Your task to perform on an android device: When is my next meeting? Image 0: 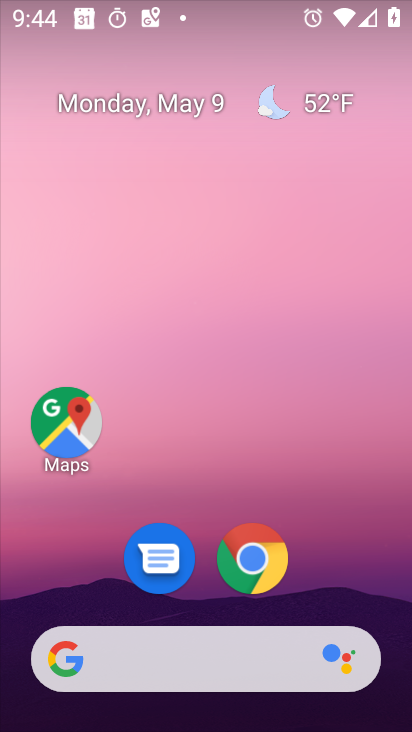
Step 0: drag from (208, 562) to (255, 112)
Your task to perform on an android device: When is my next meeting? Image 1: 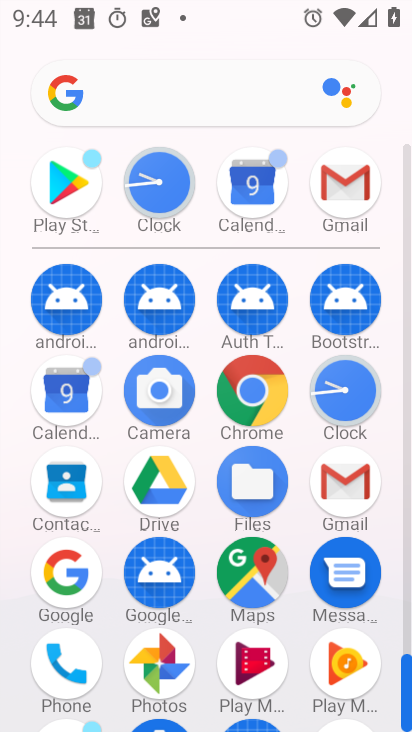
Step 1: click (250, 154)
Your task to perform on an android device: When is my next meeting? Image 2: 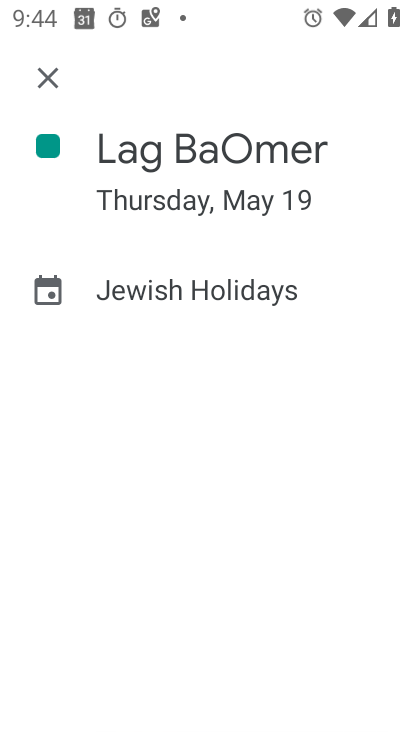
Step 2: click (58, 70)
Your task to perform on an android device: When is my next meeting? Image 3: 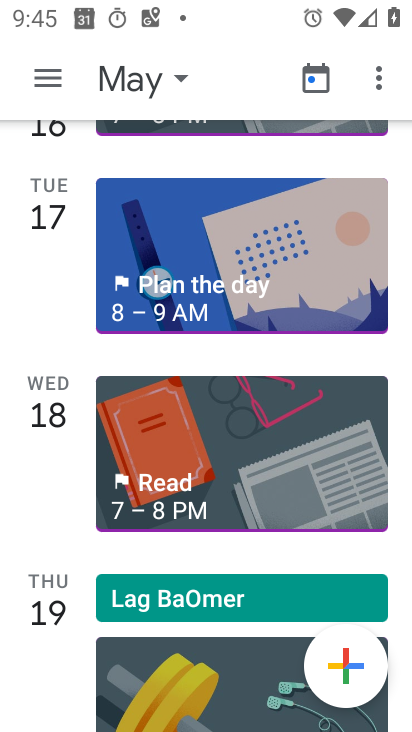
Step 3: click (157, 85)
Your task to perform on an android device: When is my next meeting? Image 4: 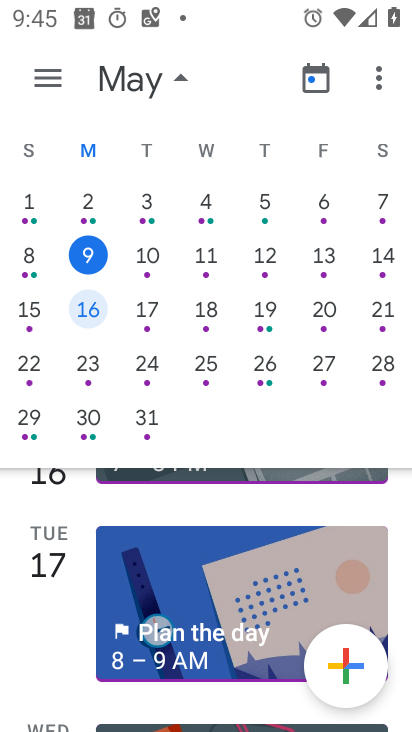
Step 4: click (85, 261)
Your task to perform on an android device: When is my next meeting? Image 5: 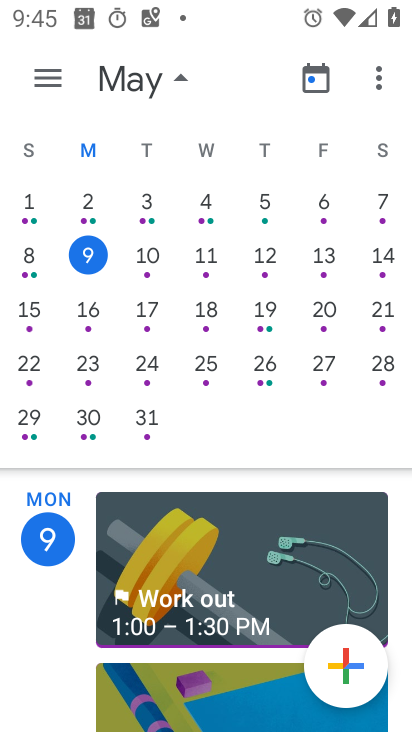
Step 5: drag from (250, 672) to (297, 203)
Your task to perform on an android device: When is my next meeting? Image 6: 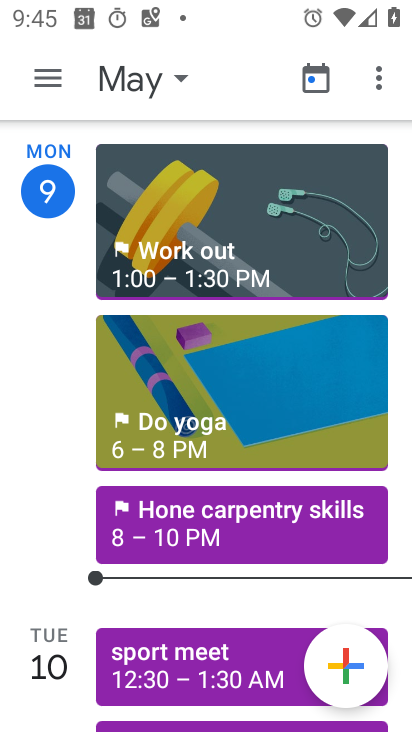
Step 6: drag from (193, 626) to (293, 174)
Your task to perform on an android device: When is my next meeting? Image 7: 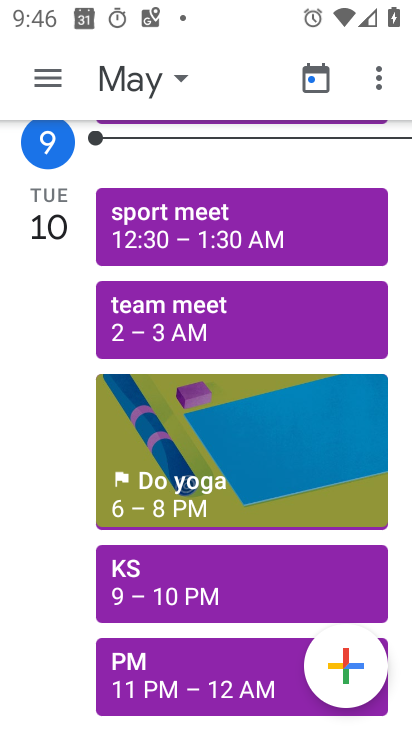
Step 7: drag from (153, 676) to (290, 82)
Your task to perform on an android device: When is my next meeting? Image 8: 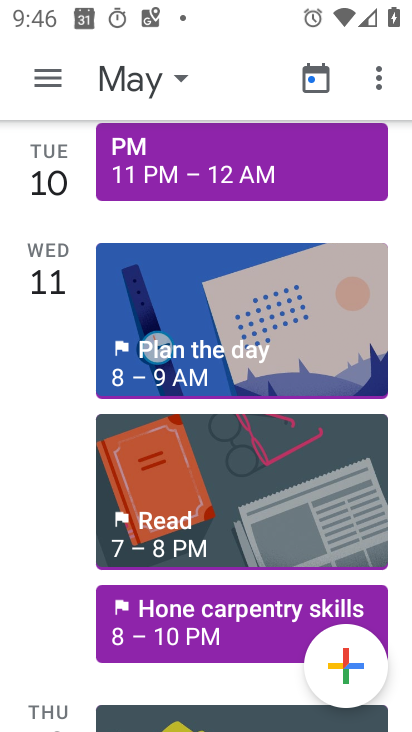
Step 8: drag from (160, 694) to (345, 94)
Your task to perform on an android device: When is my next meeting? Image 9: 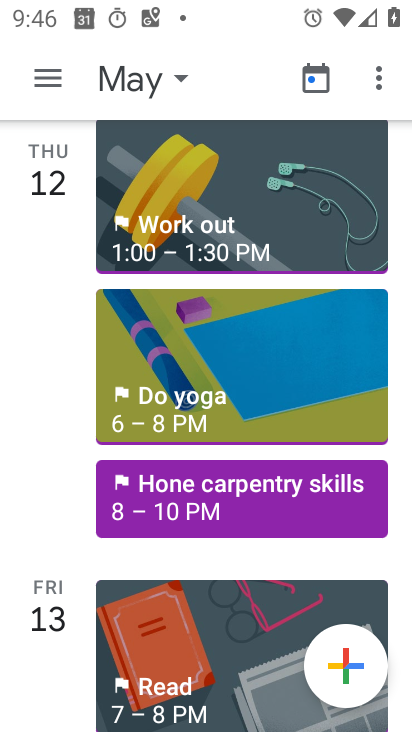
Step 9: drag from (225, 652) to (326, 100)
Your task to perform on an android device: When is my next meeting? Image 10: 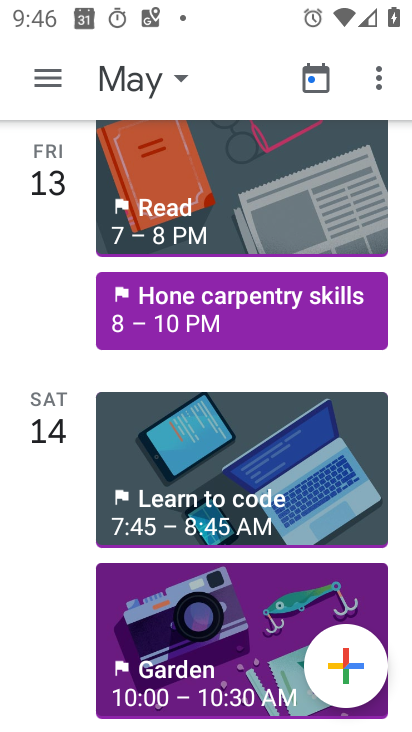
Step 10: drag from (184, 666) to (317, 113)
Your task to perform on an android device: When is my next meeting? Image 11: 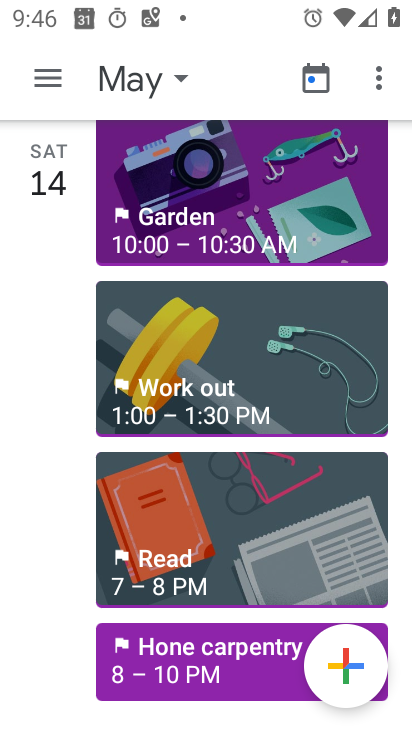
Step 11: drag from (174, 640) to (300, 92)
Your task to perform on an android device: When is my next meeting? Image 12: 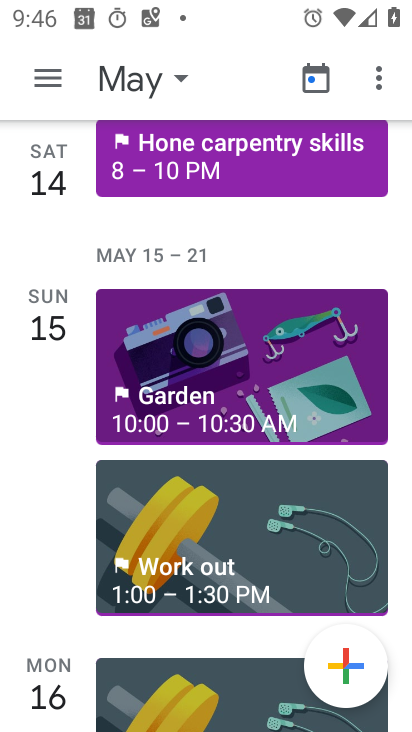
Step 12: drag from (238, 631) to (313, 93)
Your task to perform on an android device: When is my next meeting? Image 13: 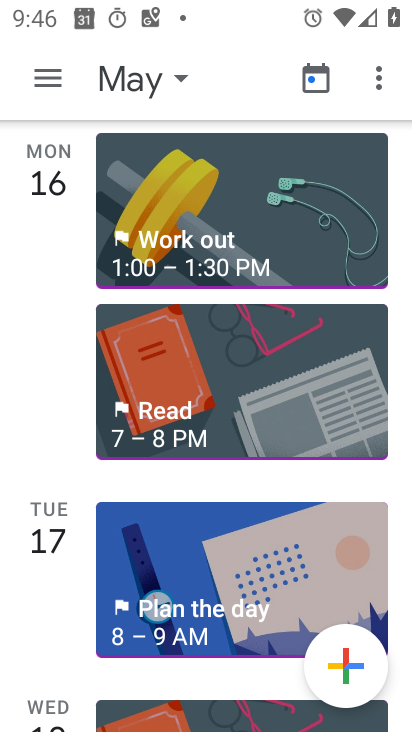
Step 13: drag from (189, 621) to (178, 723)
Your task to perform on an android device: When is my next meeting? Image 14: 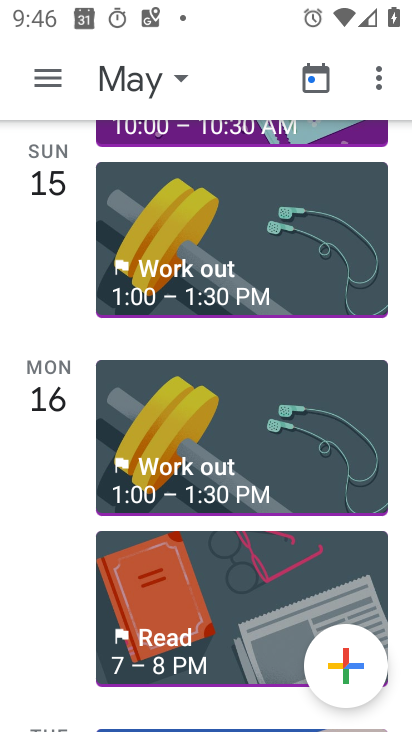
Step 14: drag from (218, 200) to (187, 712)
Your task to perform on an android device: When is my next meeting? Image 15: 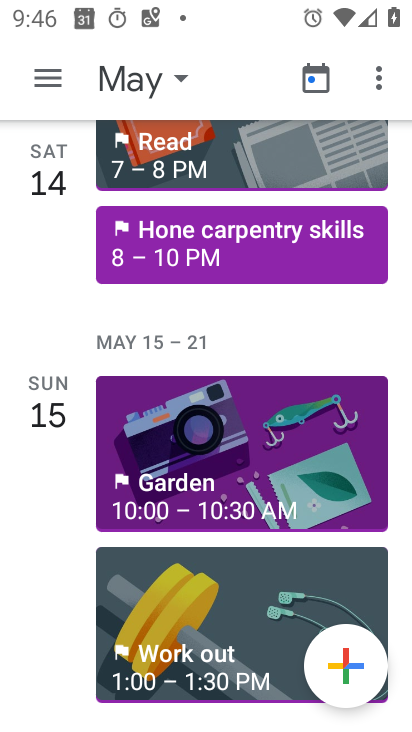
Step 15: drag from (217, 255) to (178, 728)
Your task to perform on an android device: When is my next meeting? Image 16: 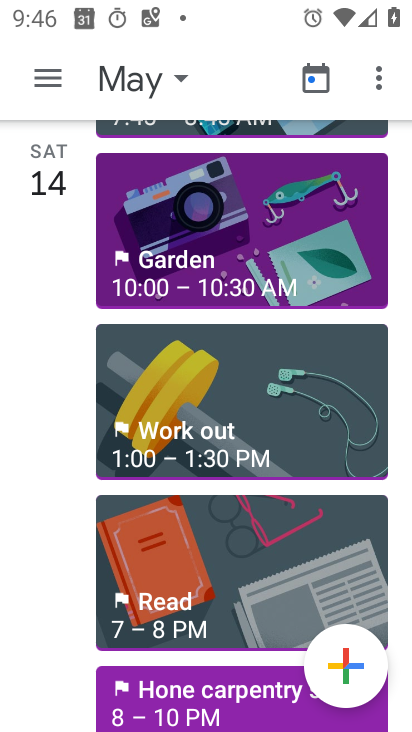
Step 16: drag from (228, 230) to (167, 707)
Your task to perform on an android device: When is my next meeting? Image 17: 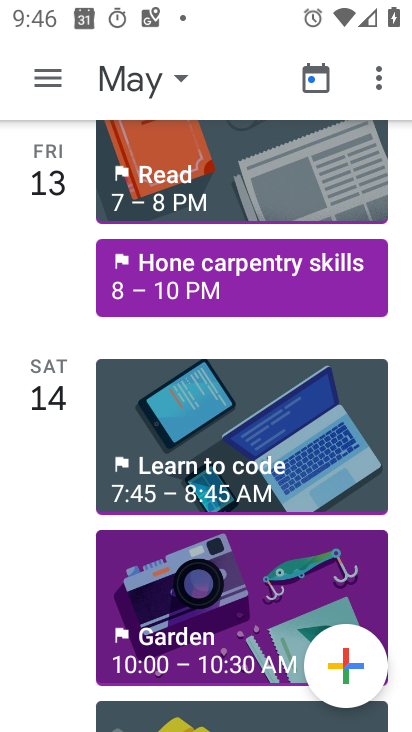
Step 17: drag from (191, 267) to (191, 729)
Your task to perform on an android device: When is my next meeting? Image 18: 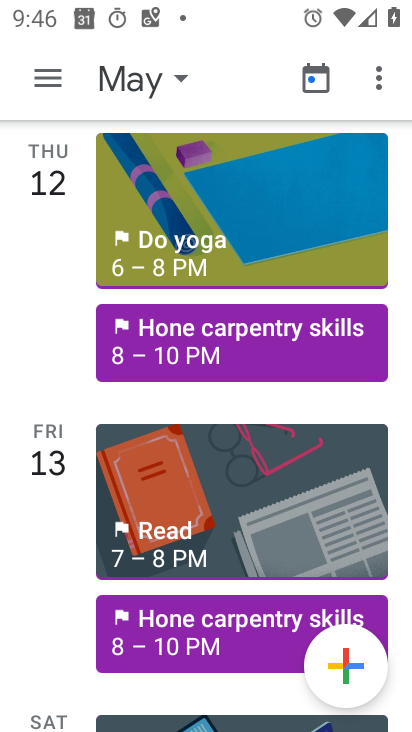
Step 18: drag from (188, 252) to (158, 731)
Your task to perform on an android device: When is my next meeting? Image 19: 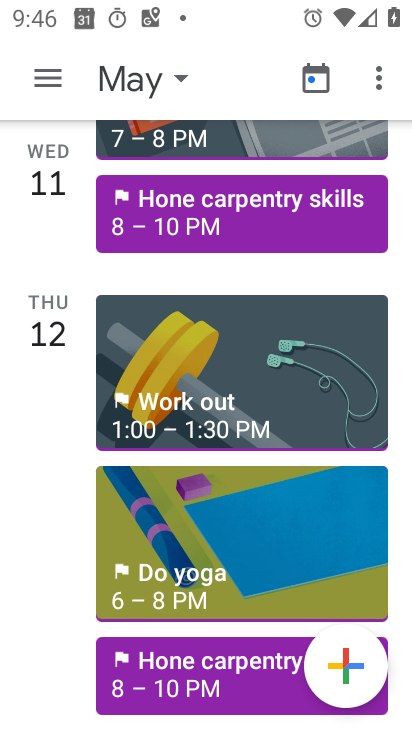
Step 19: drag from (234, 222) to (212, 725)
Your task to perform on an android device: When is my next meeting? Image 20: 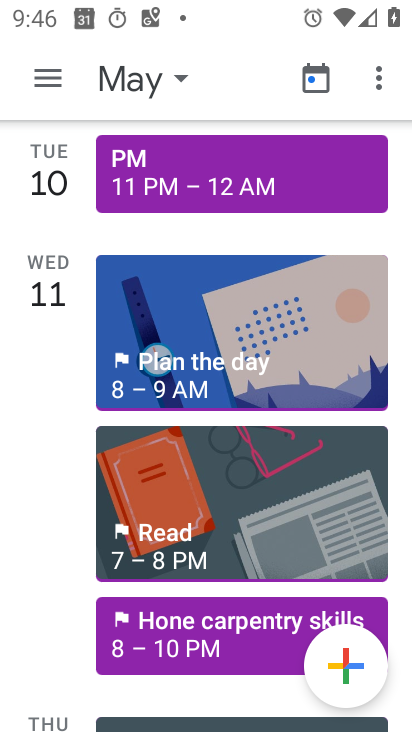
Step 20: drag from (214, 281) to (179, 704)
Your task to perform on an android device: When is my next meeting? Image 21: 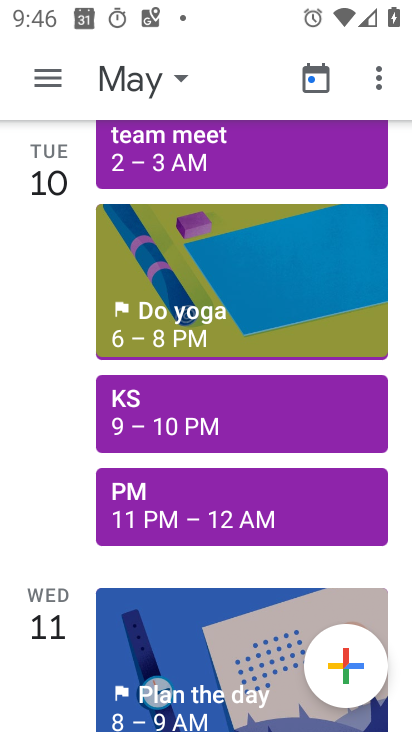
Step 21: click (169, 128)
Your task to perform on an android device: When is my next meeting? Image 22: 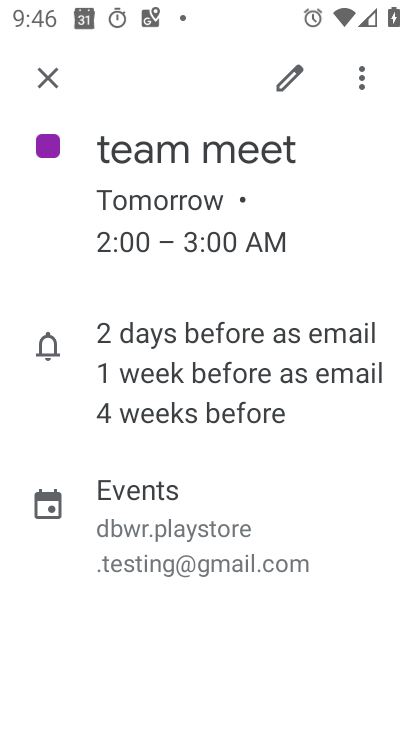
Step 22: task complete